Your task to perform on an android device: Open battery settings Image 0: 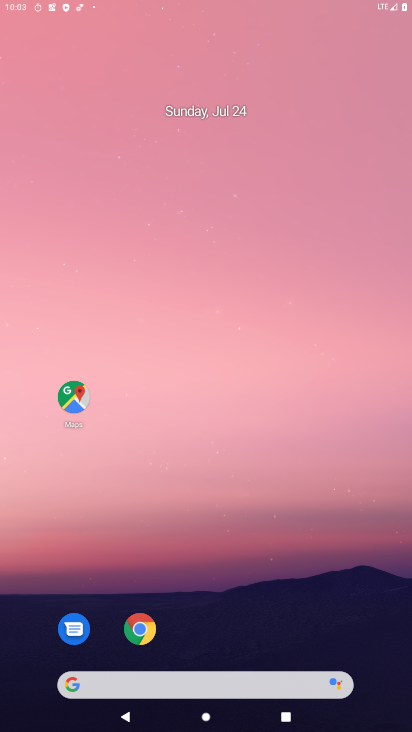
Step 0: press home button
Your task to perform on an android device: Open battery settings Image 1: 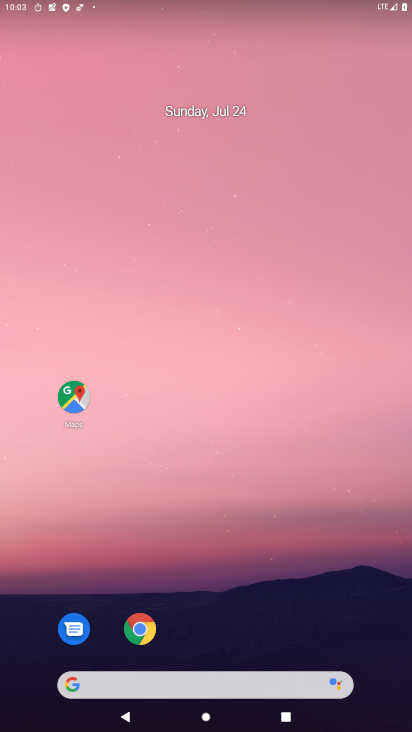
Step 1: drag from (293, 614) to (242, 11)
Your task to perform on an android device: Open battery settings Image 2: 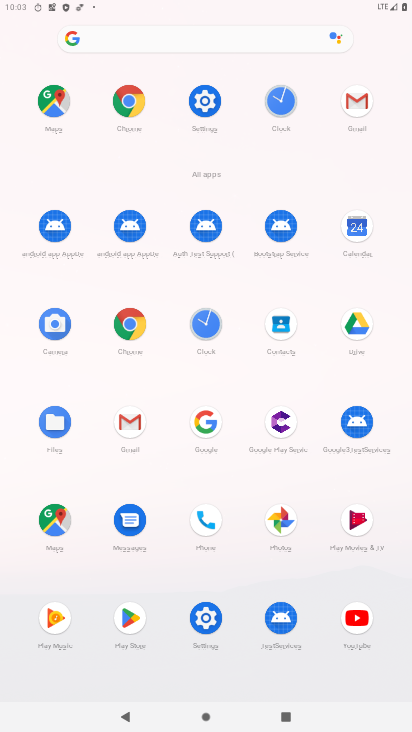
Step 2: click (209, 94)
Your task to perform on an android device: Open battery settings Image 3: 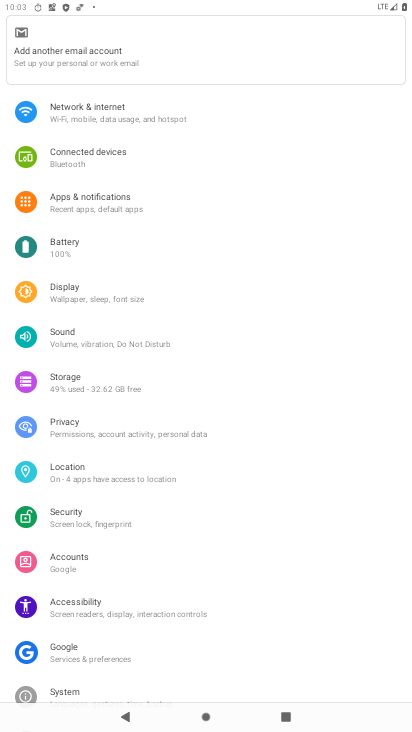
Step 3: drag from (91, 464) to (118, 619)
Your task to perform on an android device: Open battery settings Image 4: 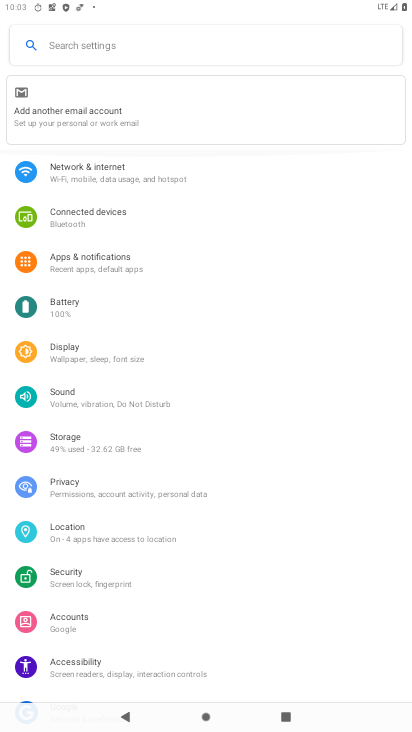
Step 4: click (68, 309)
Your task to perform on an android device: Open battery settings Image 5: 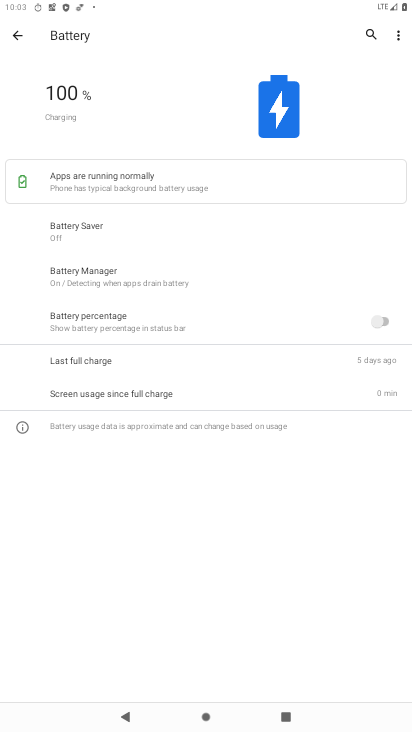
Step 5: task complete